Your task to perform on an android device: Go to internet settings Image 0: 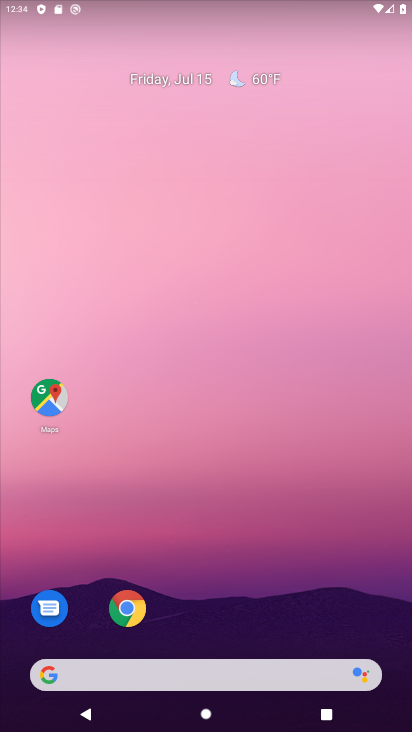
Step 0: drag from (303, 605) to (306, 101)
Your task to perform on an android device: Go to internet settings Image 1: 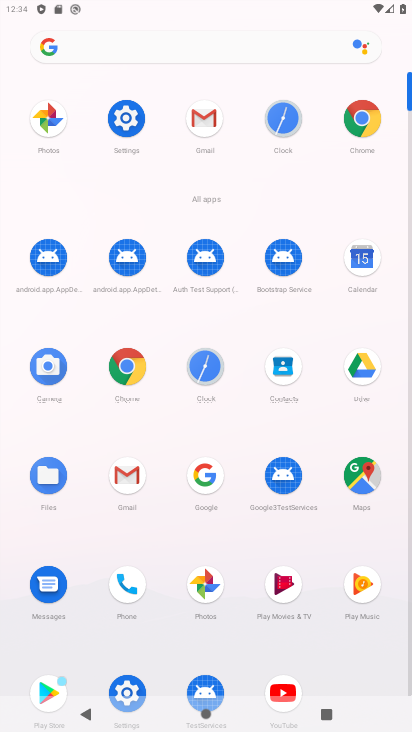
Step 1: click (138, 107)
Your task to perform on an android device: Go to internet settings Image 2: 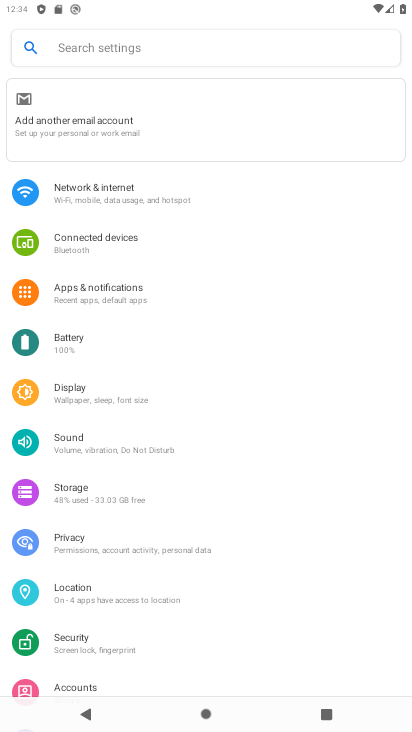
Step 2: click (94, 190)
Your task to perform on an android device: Go to internet settings Image 3: 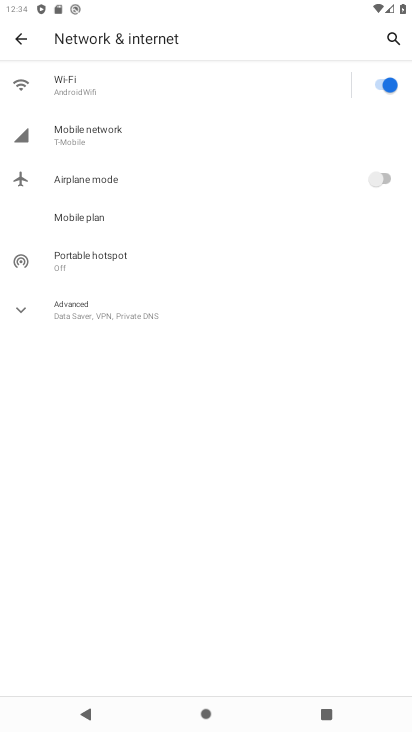
Step 3: task complete